Your task to perform on an android device: turn notification dots off Image 0: 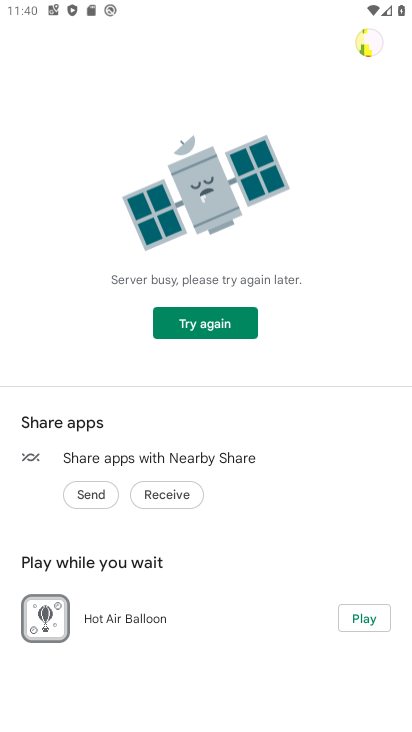
Step 0: press home button
Your task to perform on an android device: turn notification dots off Image 1: 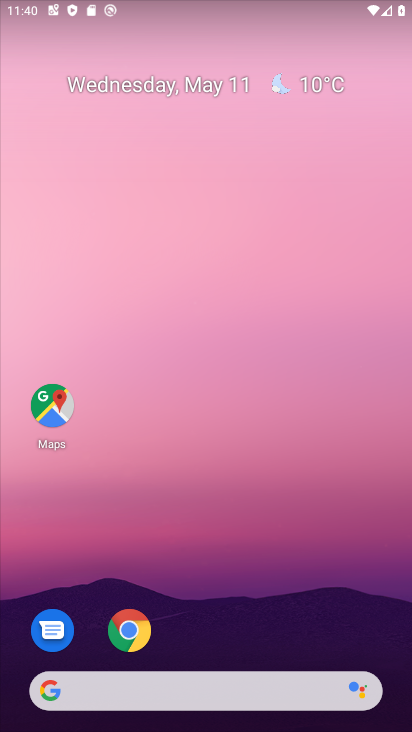
Step 1: drag from (186, 682) to (314, 83)
Your task to perform on an android device: turn notification dots off Image 2: 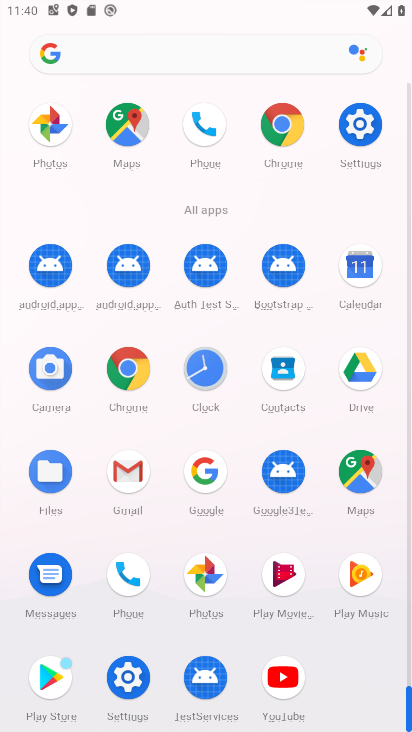
Step 2: click (133, 675)
Your task to perform on an android device: turn notification dots off Image 3: 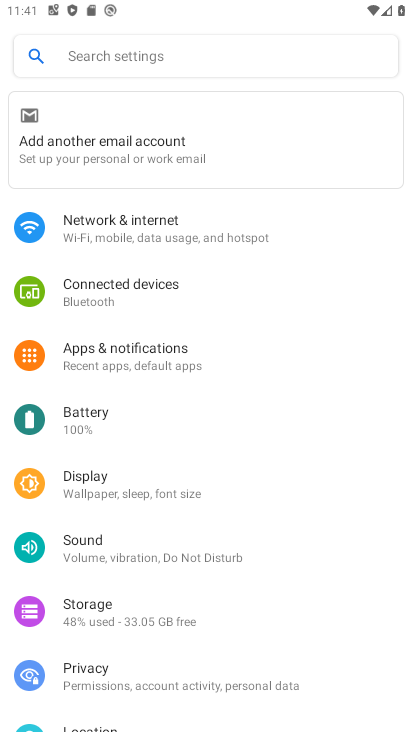
Step 3: click (187, 363)
Your task to perform on an android device: turn notification dots off Image 4: 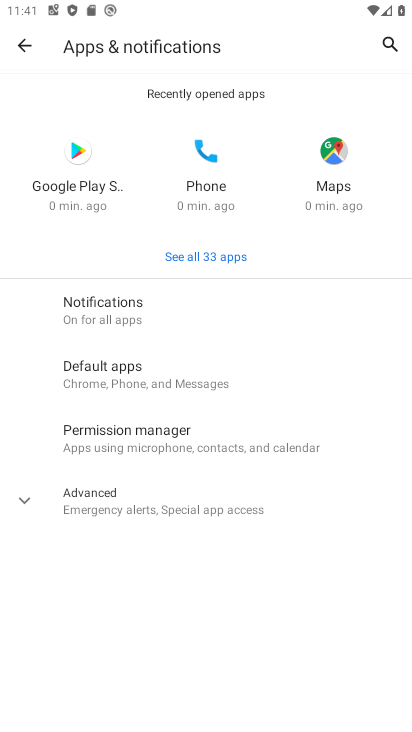
Step 4: click (171, 307)
Your task to perform on an android device: turn notification dots off Image 5: 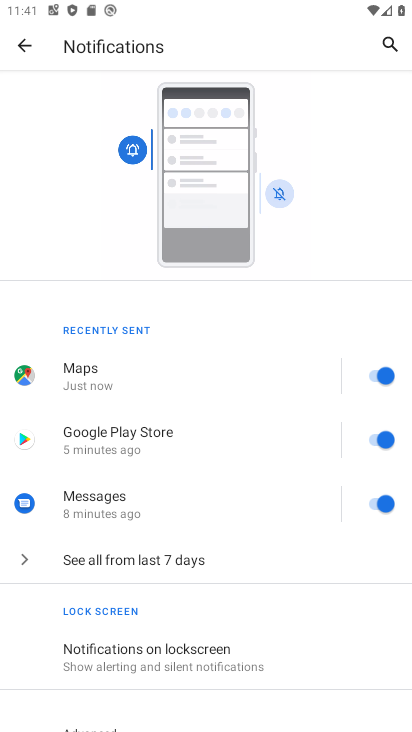
Step 5: drag from (164, 608) to (237, 349)
Your task to perform on an android device: turn notification dots off Image 6: 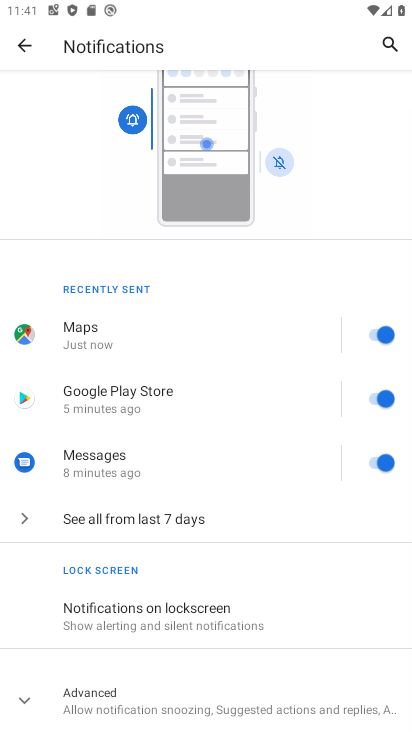
Step 6: click (173, 699)
Your task to perform on an android device: turn notification dots off Image 7: 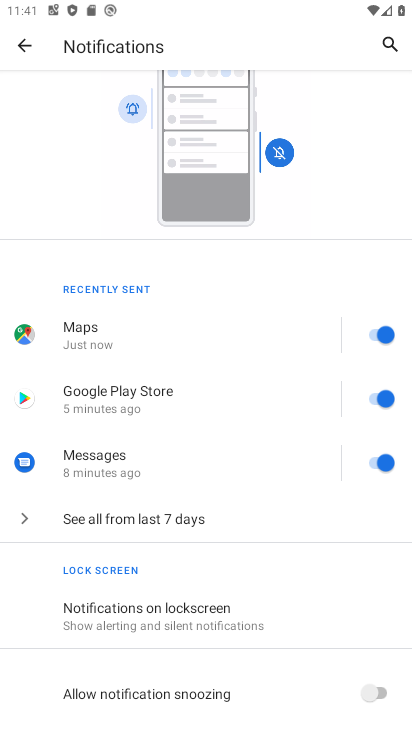
Step 7: drag from (165, 651) to (264, 289)
Your task to perform on an android device: turn notification dots off Image 8: 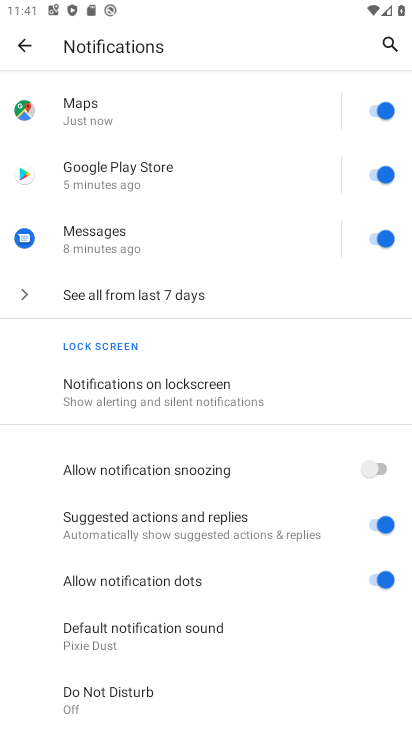
Step 8: click (372, 574)
Your task to perform on an android device: turn notification dots off Image 9: 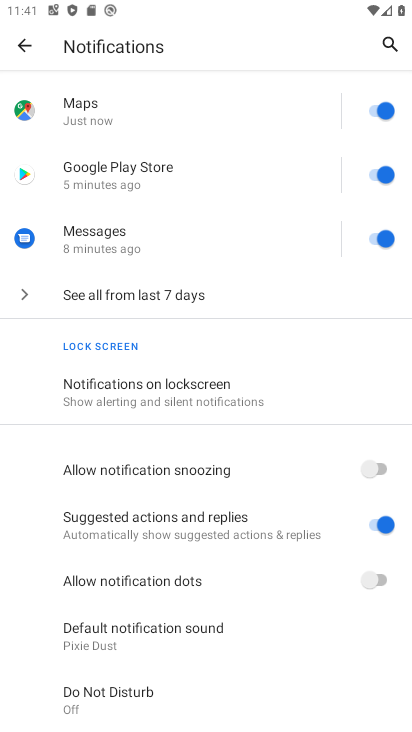
Step 9: task complete